Your task to perform on an android device: Open ESPN.com Image 0: 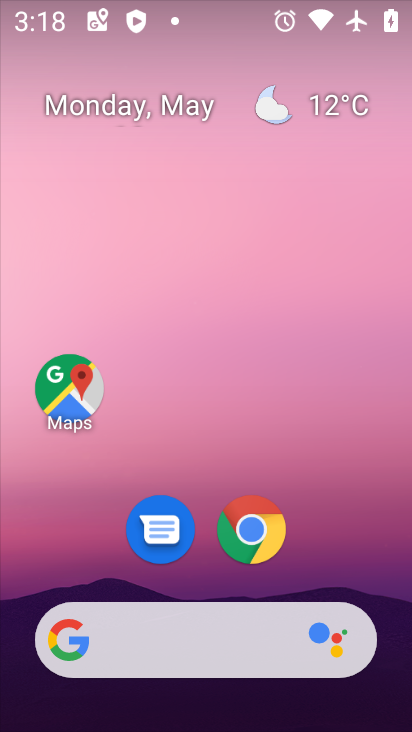
Step 0: click (240, 527)
Your task to perform on an android device: Open ESPN.com Image 1: 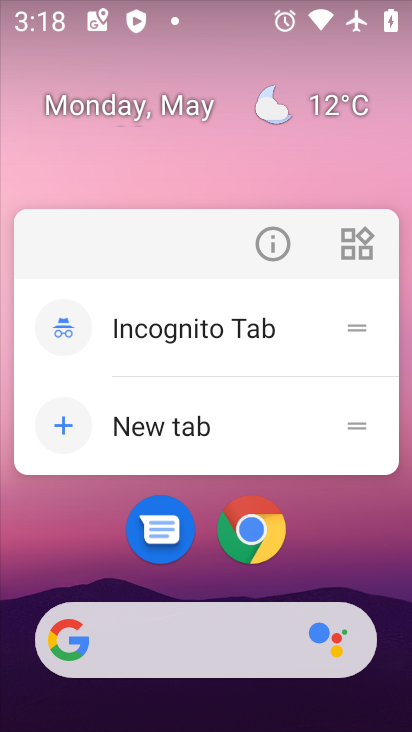
Step 1: click (241, 527)
Your task to perform on an android device: Open ESPN.com Image 2: 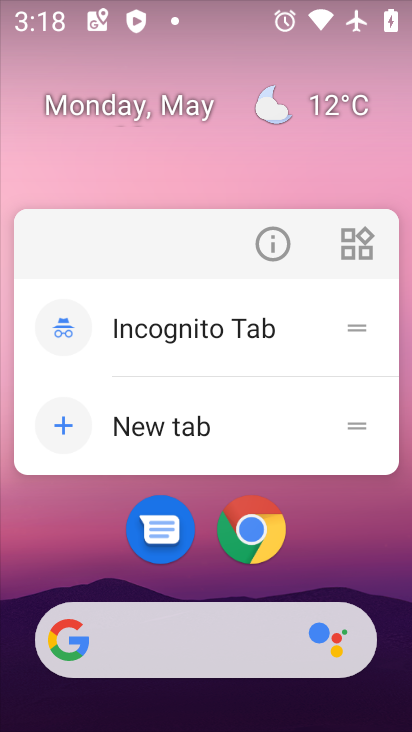
Step 2: click (257, 537)
Your task to perform on an android device: Open ESPN.com Image 3: 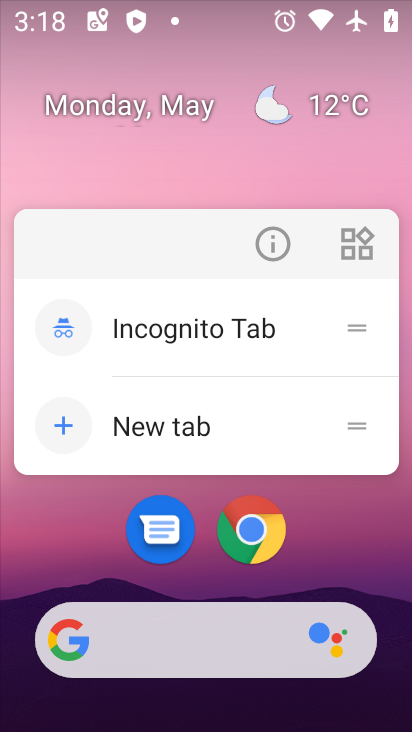
Step 3: click (257, 531)
Your task to perform on an android device: Open ESPN.com Image 4: 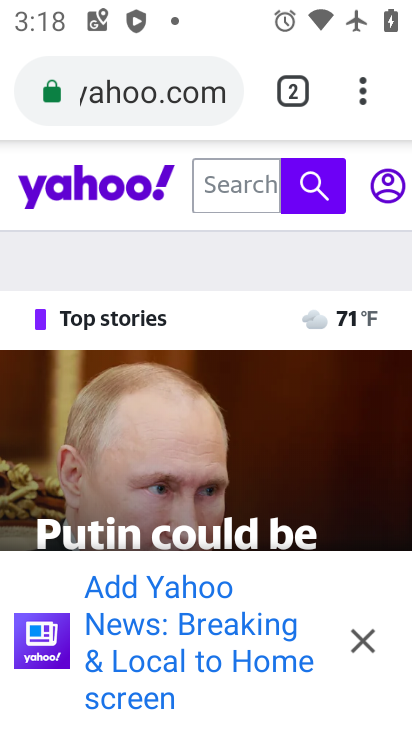
Step 4: click (180, 93)
Your task to perform on an android device: Open ESPN.com Image 5: 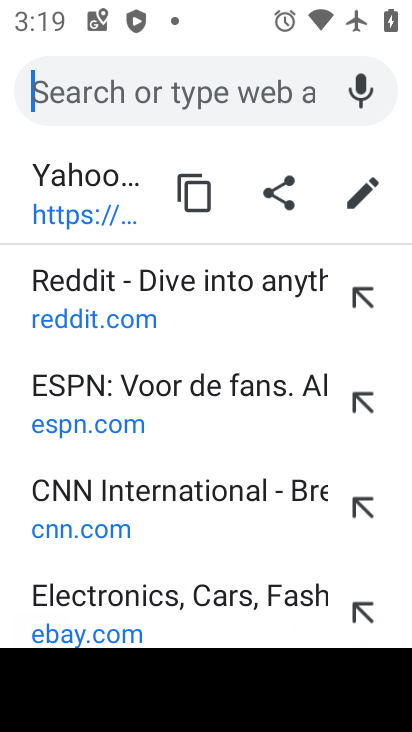
Step 5: type "ESPN.com"
Your task to perform on an android device: Open ESPN.com Image 6: 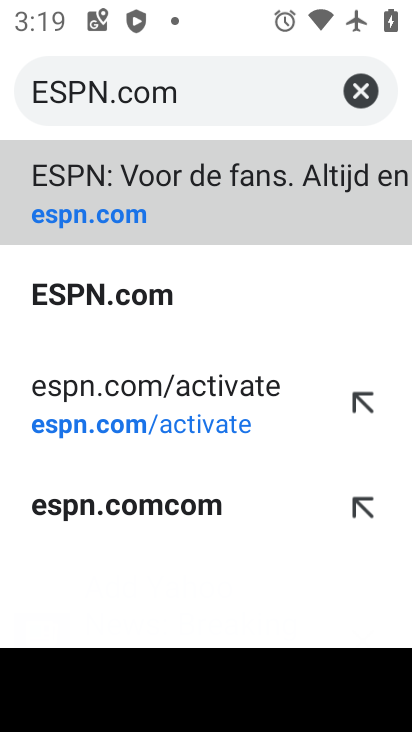
Step 6: click (140, 184)
Your task to perform on an android device: Open ESPN.com Image 7: 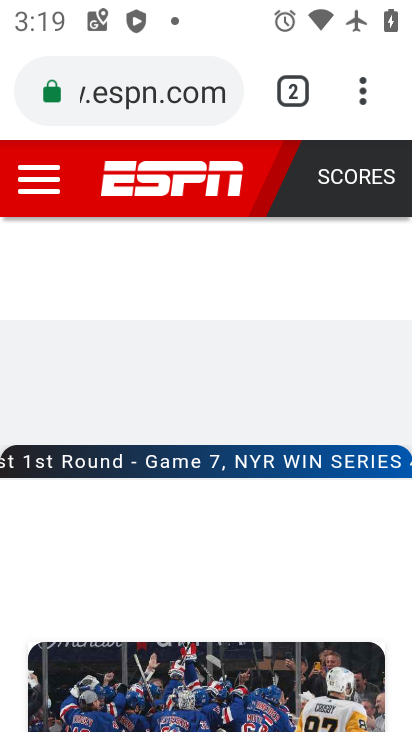
Step 7: task complete